Your task to perform on an android device: Go to Amazon Image 0: 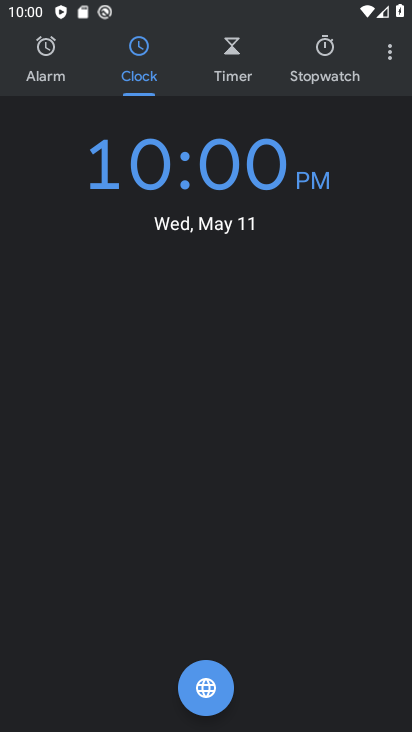
Step 0: press home button
Your task to perform on an android device: Go to Amazon Image 1: 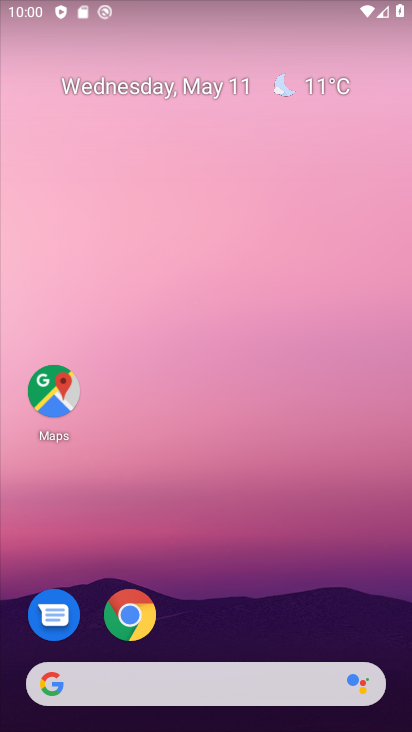
Step 1: click (135, 614)
Your task to perform on an android device: Go to Amazon Image 2: 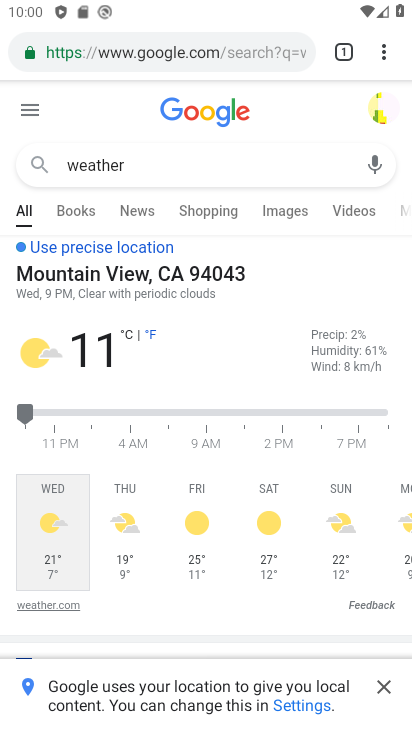
Step 2: click (252, 52)
Your task to perform on an android device: Go to Amazon Image 3: 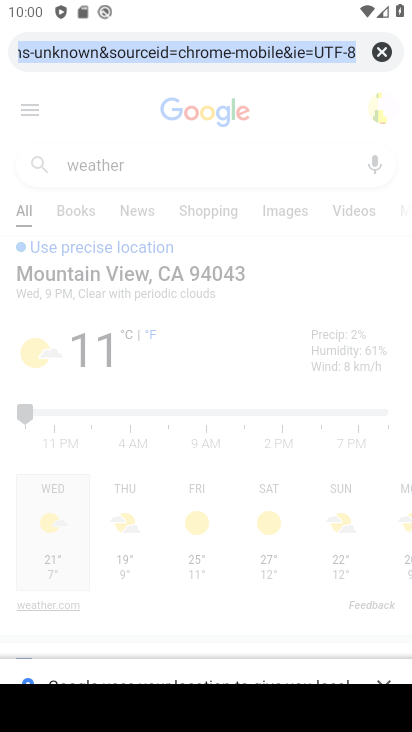
Step 3: type "amazon"
Your task to perform on an android device: Go to Amazon Image 4: 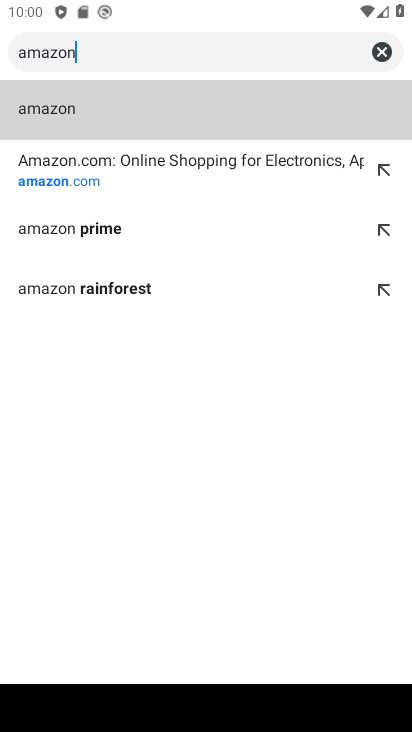
Step 4: click (50, 178)
Your task to perform on an android device: Go to Amazon Image 5: 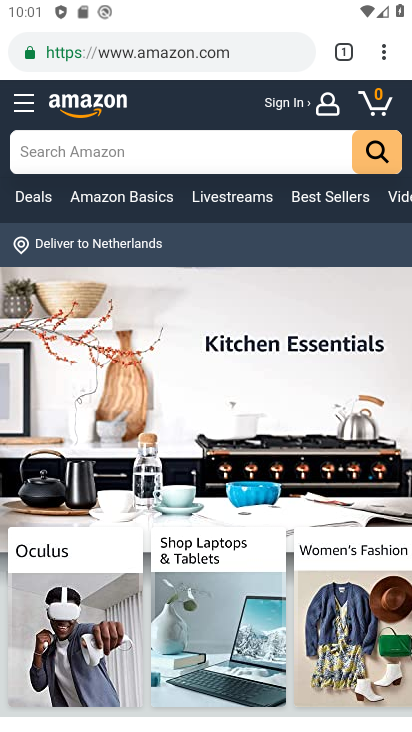
Step 5: task complete